Your task to perform on an android device: Go to sound settings Image 0: 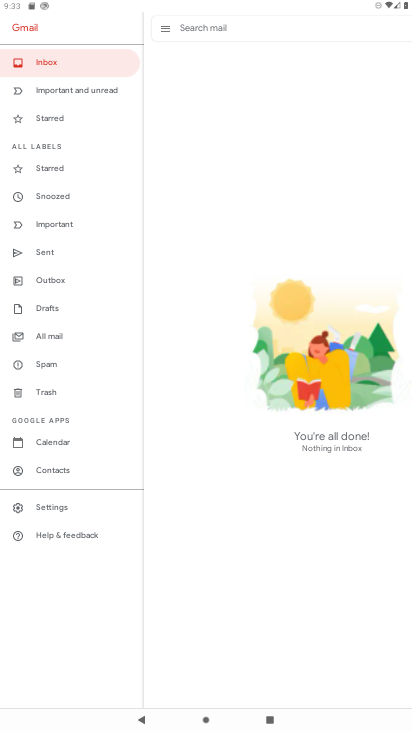
Step 0: press home button
Your task to perform on an android device: Go to sound settings Image 1: 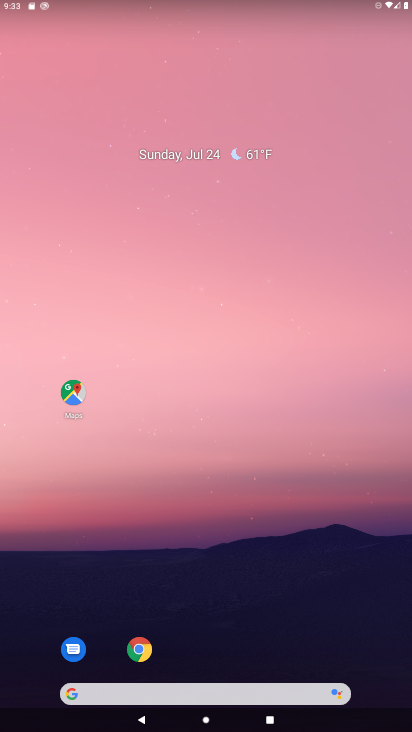
Step 1: drag from (235, 643) to (261, 454)
Your task to perform on an android device: Go to sound settings Image 2: 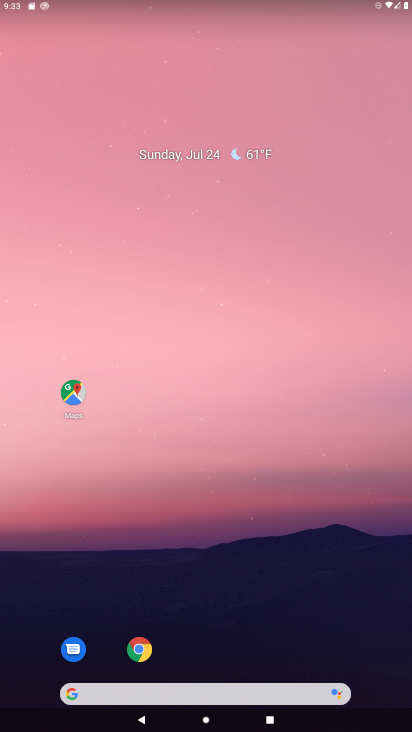
Step 2: drag from (313, 589) to (242, 61)
Your task to perform on an android device: Go to sound settings Image 3: 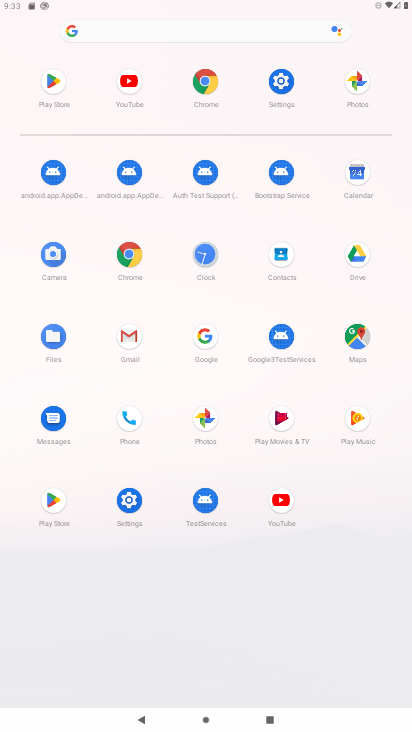
Step 3: click (281, 78)
Your task to perform on an android device: Go to sound settings Image 4: 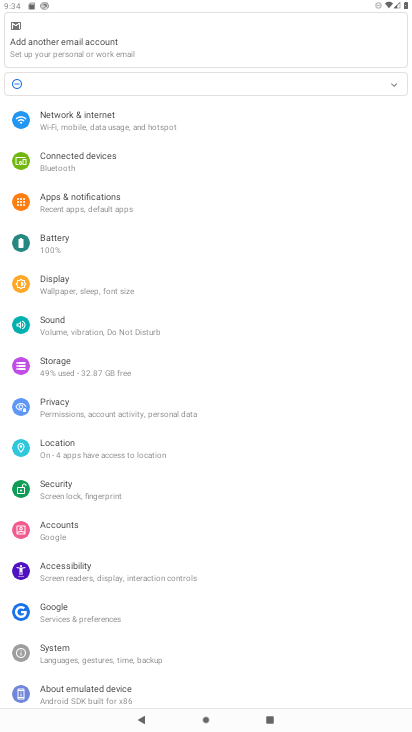
Step 4: click (88, 331)
Your task to perform on an android device: Go to sound settings Image 5: 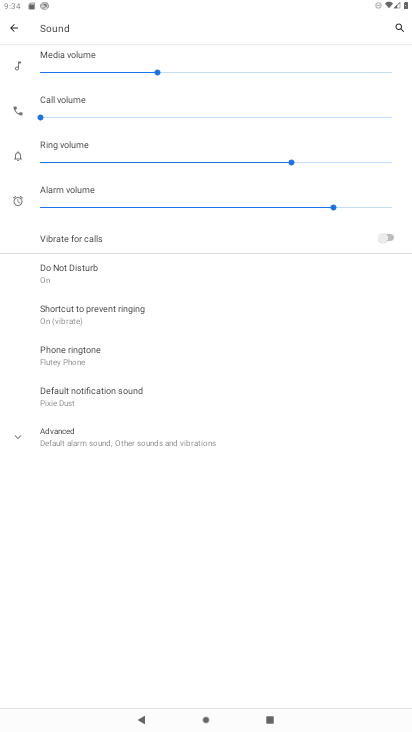
Step 5: task complete